Your task to perform on an android device: toggle javascript in the chrome app Image 0: 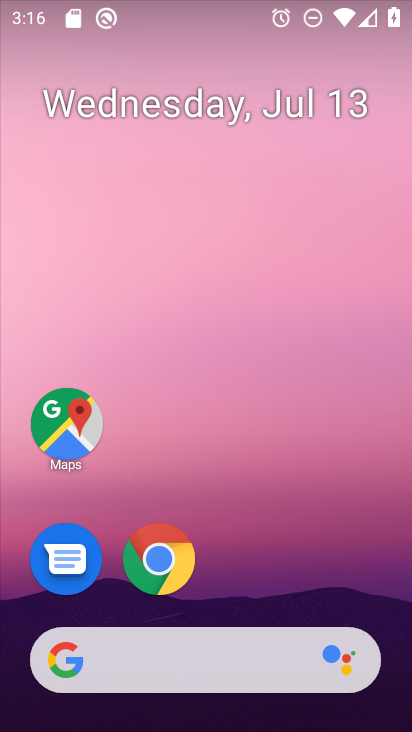
Step 0: drag from (344, 577) to (385, 183)
Your task to perform on an android device: toggle javascript in the chrome app Image 1: 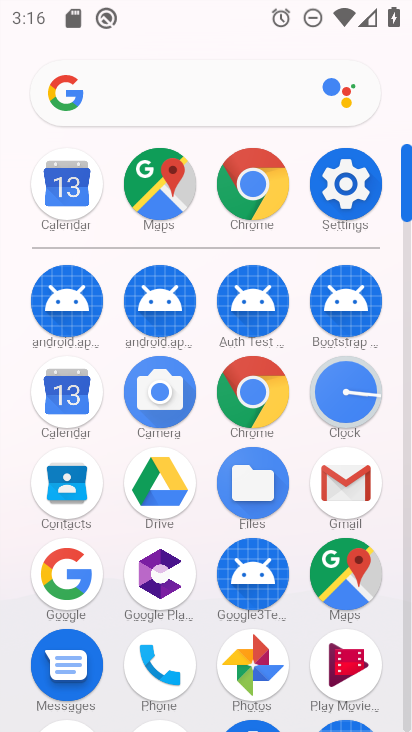
Step 1: click (264, 383)
Your task to perform on an android device: toggle javascript in the chrome app Image 2: 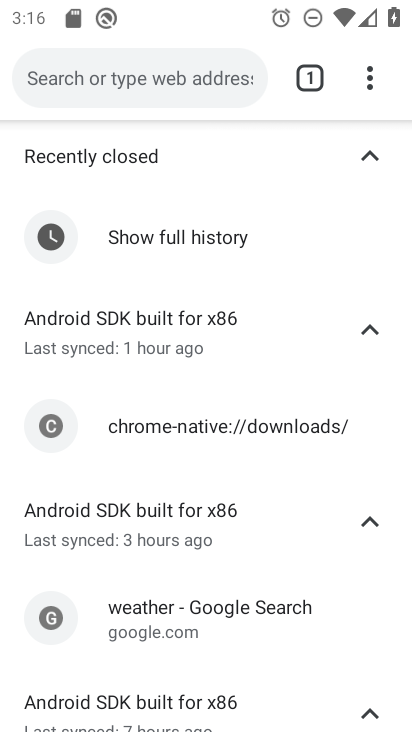
Step 2: click (368, 86)
Your task to perform on an android device: toggle javascript in the chrome app Image 3: 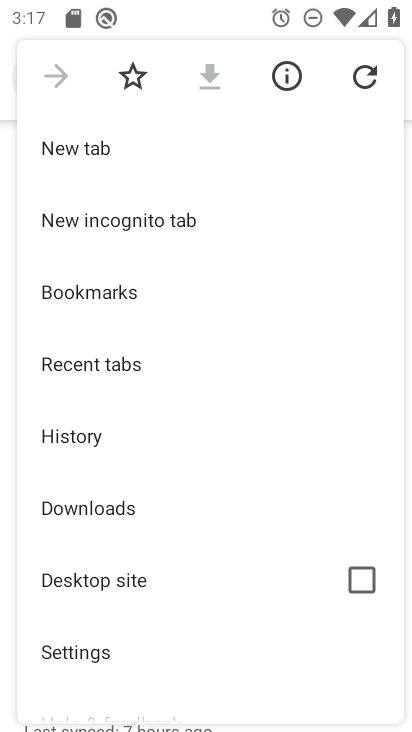
Step 3: click (99, 658)
Your task to perform on an android device: toggle javascript in the chrome app Image 4: 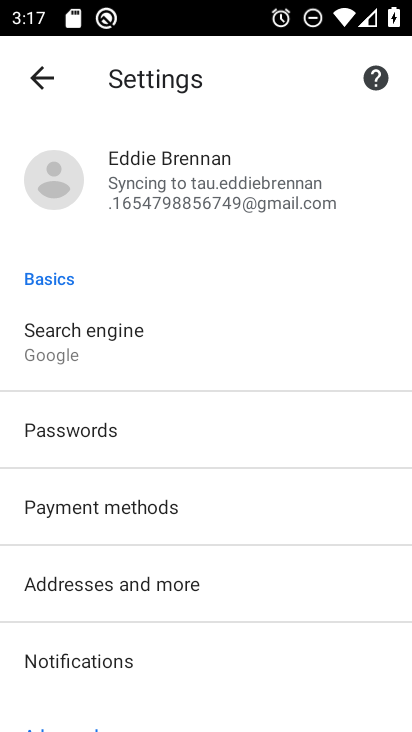
Step 4: drag from (269, 643) to (309, 525)
Your task to perform on an android device: toggle javascript in the chrome app Image 5: 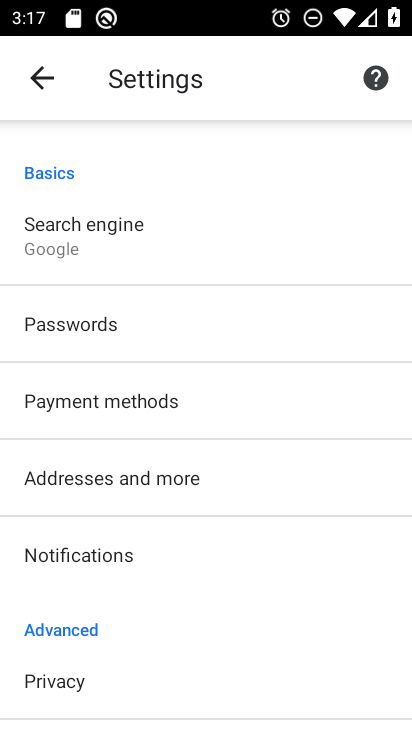
Step 5: drag from (337, 583) to (347, 473)
Your task to perform on an android device: toggle javascript in the chrome app Image 6: 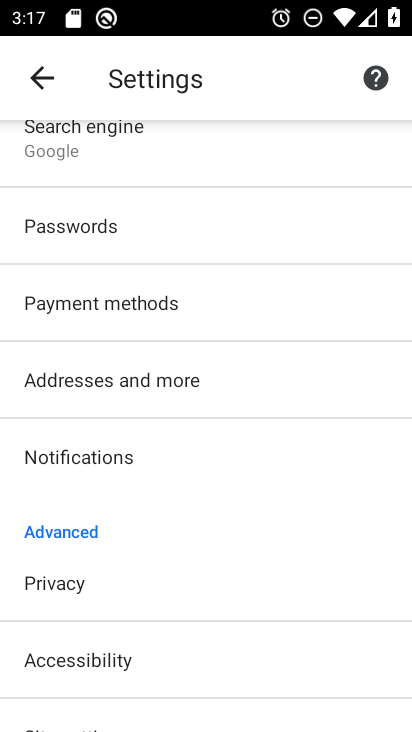
Step 6: drag from (321, 584) to (320, 484)
Your task to perform on an android device: toggle javascript in the chrome app Image 7: 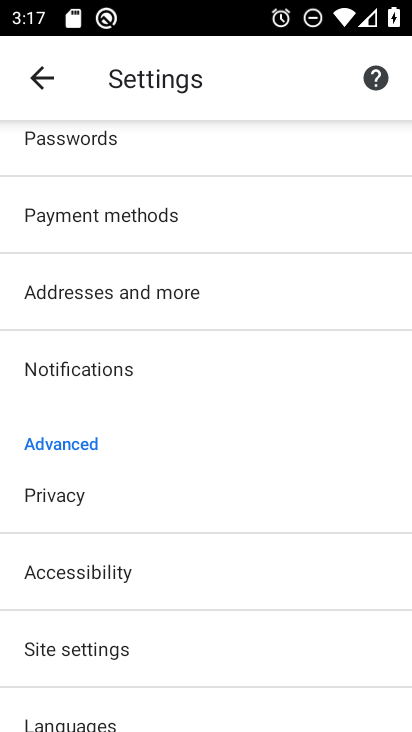
Step 7: drag from (310, 578) to (315, 488)
Your task to perform on an android device: toggle javascript in the chrome app Image 8: 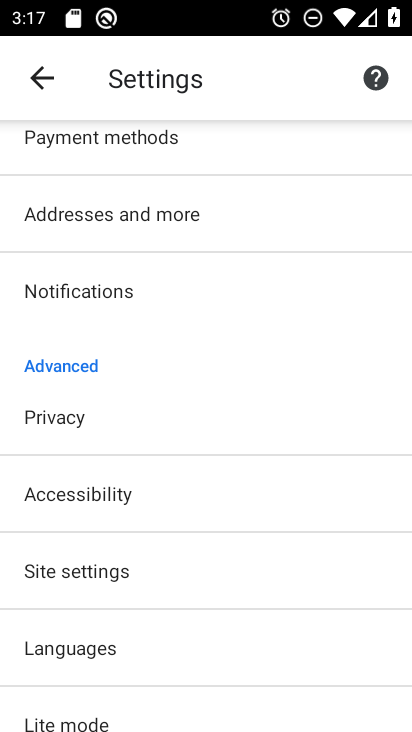
Step 8: drag from (320, 573) to (331, 481)
Your task to perform on an android device: toggle javascript in the chrome app Image 9: 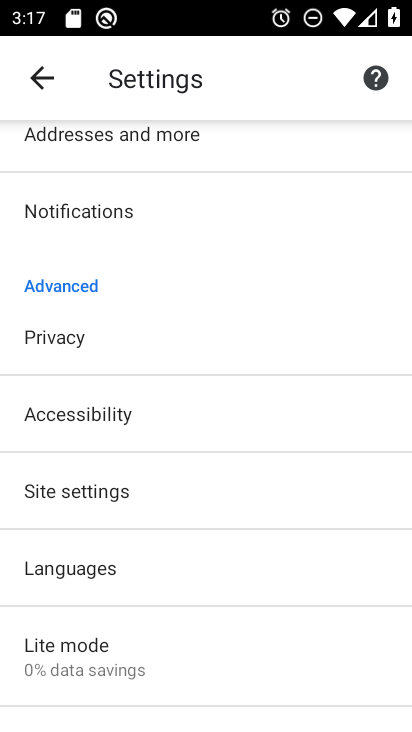
Step 9: drag from (318, 565) to (330, 466)
Your task to perform on an android device: toggle javascript in the chrome app Image 10: 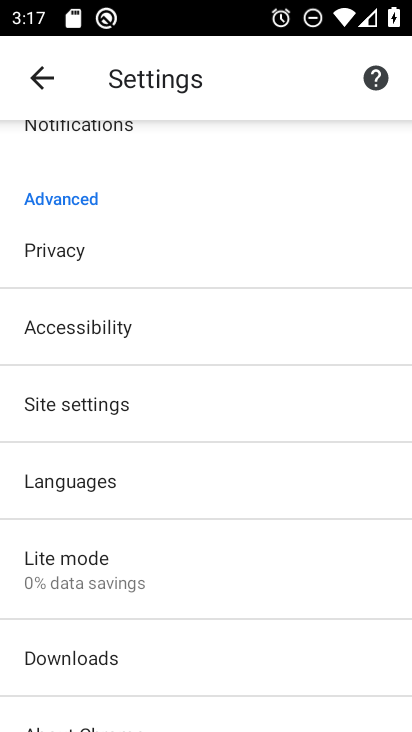
Step 10: drag from (310, 563) to (313, 424)
Your task to perform on an android device: toggle javascript in the chrome app Image 11: 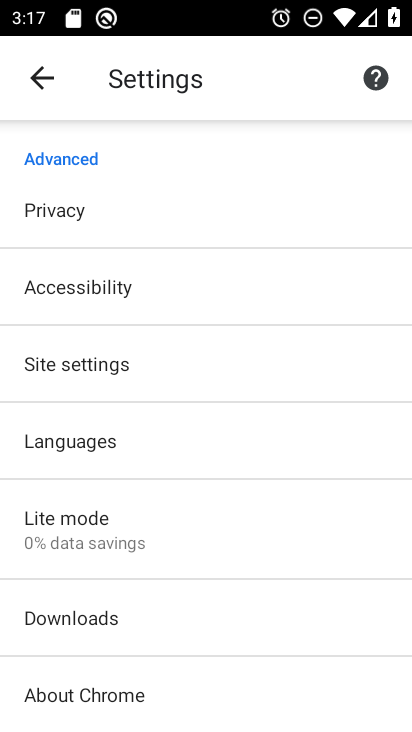
Step 11: click (284, 381)
Your task to perform on an android device: toggle javascript in the chrome app Image 12: 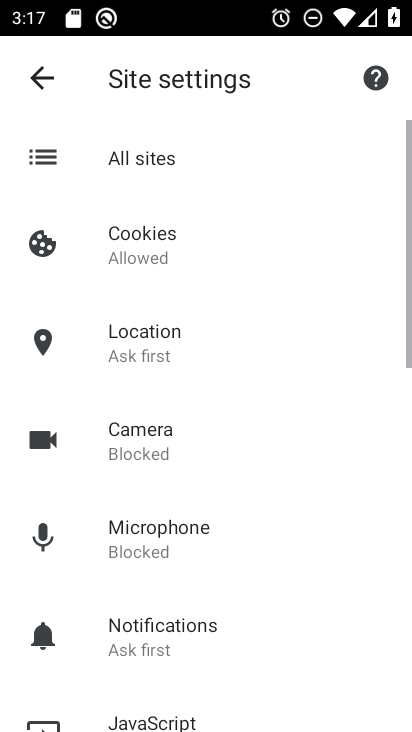
Step 12: drag from (295, 435) to (302, 364)
Your task to perform on an android device: toggle javascript in the chrome app Image 13: 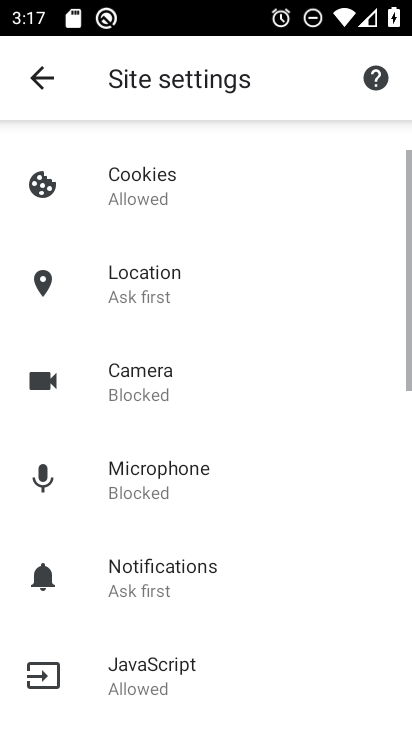
Step 13: drag from (297, 451) to (302, 362)
Your task to perform on an android device: toggle javascript in the chrome app Image 14: 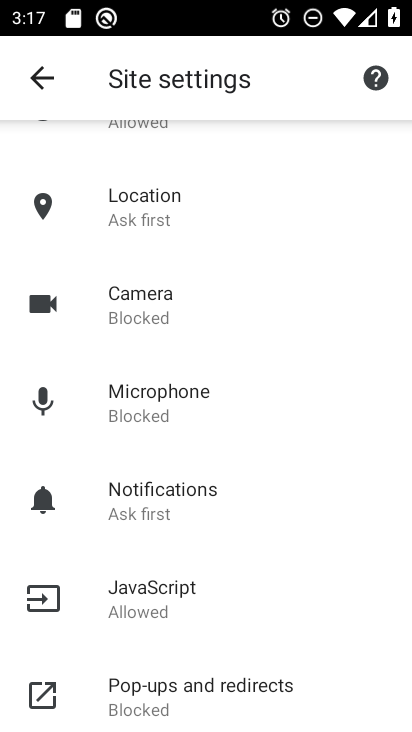
Step 14: drag from (297, 414) to (298, 341)
Your task to perform on an android device: toggle javascript in the chrome app Image 15: 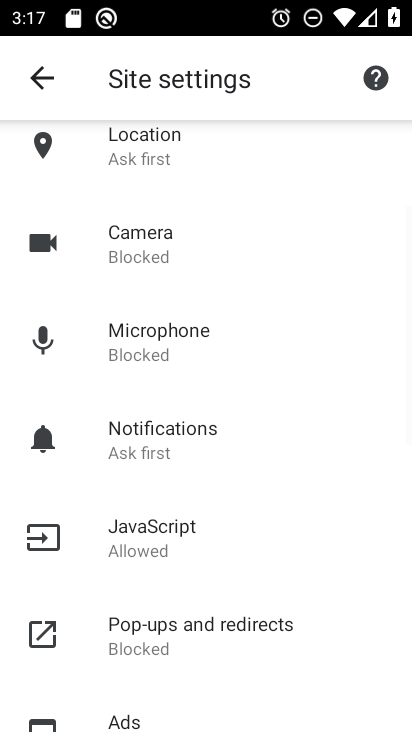
Step 15: drag from (293, 441) to (302, 362)
Your task to perform on an android device: toggle javascript in the chrome app Image 16: 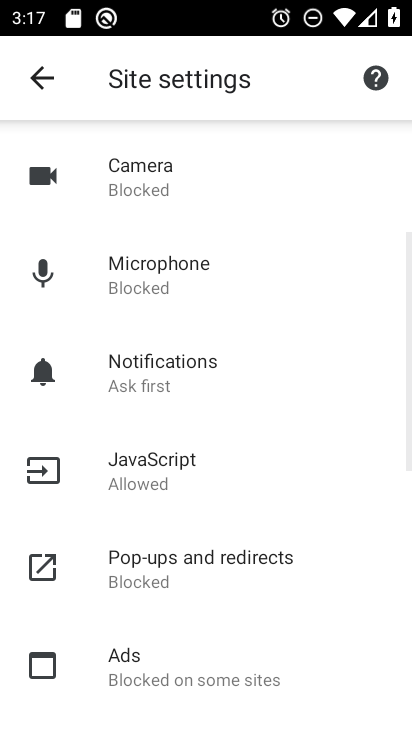
Step 16: drag from (288, 429) to (290, 317)
Your task to perform on an android device: toggle javascript in the chrome app Image 17: 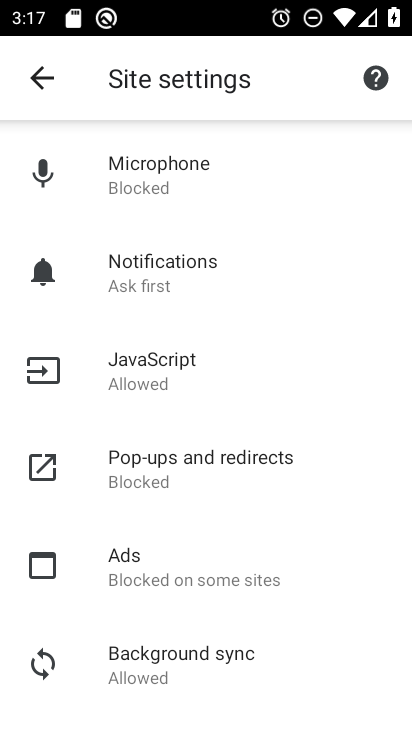
Step 17: drag from (330, 501) to (333, 387)
Your task to perform on an android device: toggle javascript in the chrome app Image 18: 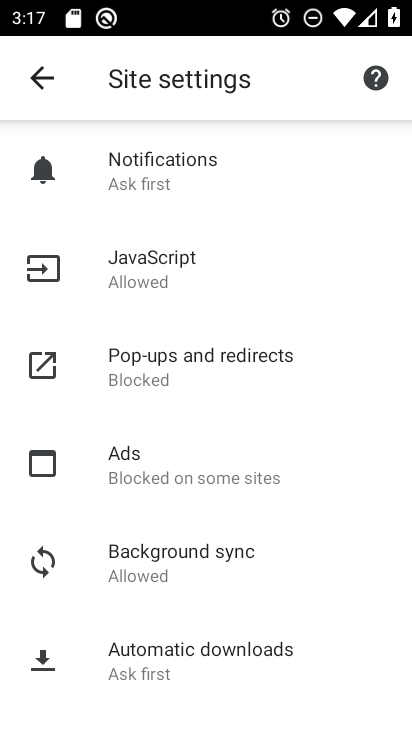
Step 18: click (215, 283)
Your task to perform on an android device: toggle javascript in the chrome app Image 19: 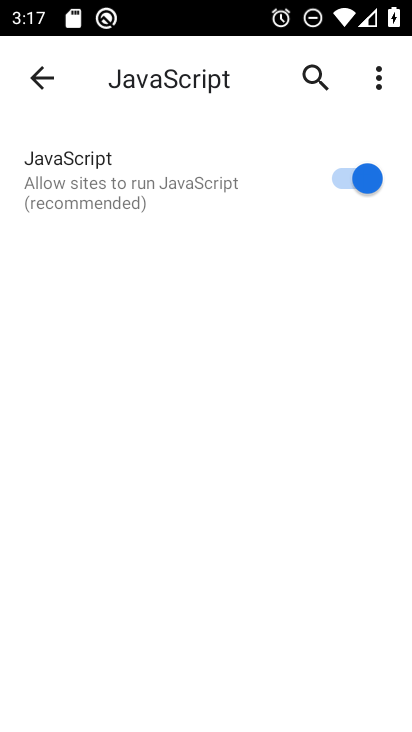
Step 19: click (366, 175)
Your task to perform on an android device: toggle javascript in the chrome app Image 20: 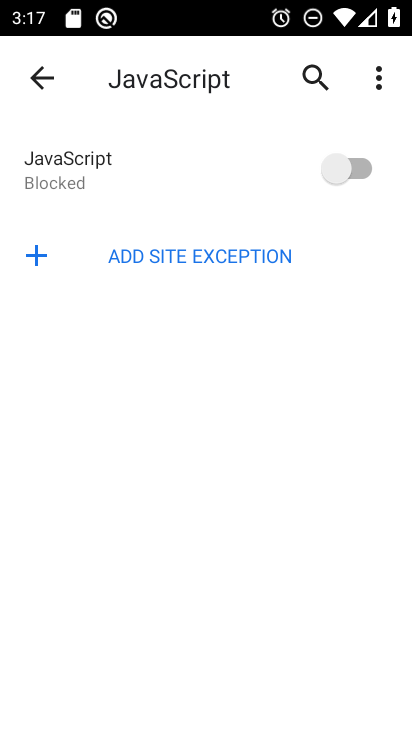
Step 20: task complete